Your task to perform on an android device: open chrome privacy settings Image 0: 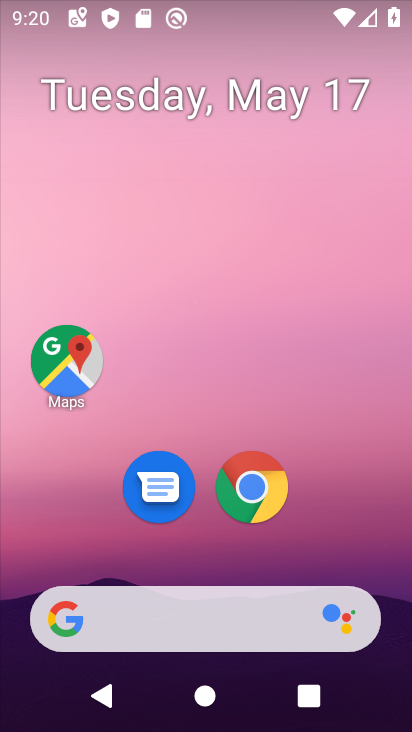
Step 0: press home button
Your task to perform on an android device: open chrome privacy settings Image 1: 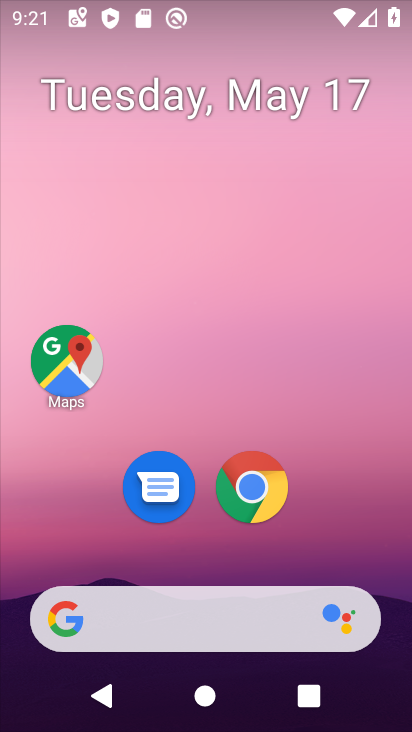
Step 1: drag from (280, 661) to (294, 383)
Your task to perform on an android device: open chrome privacy settings Image 2: 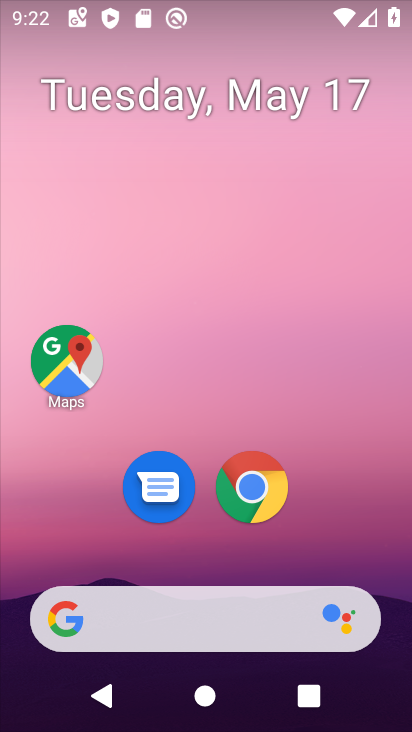
Step 2: drag from (214, 646) to (299, 225)
Your task to perform on an android device: open chrome privacy settings Image 3: 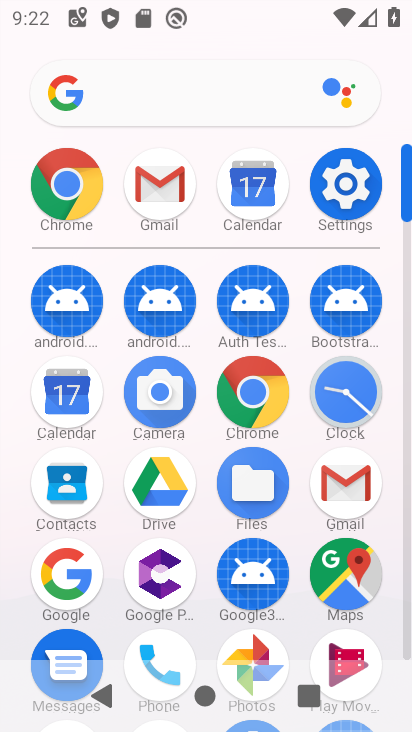
Step 3: click (57, 182)
Your task to perform on an android device: open chrome privacy settings Image 4: 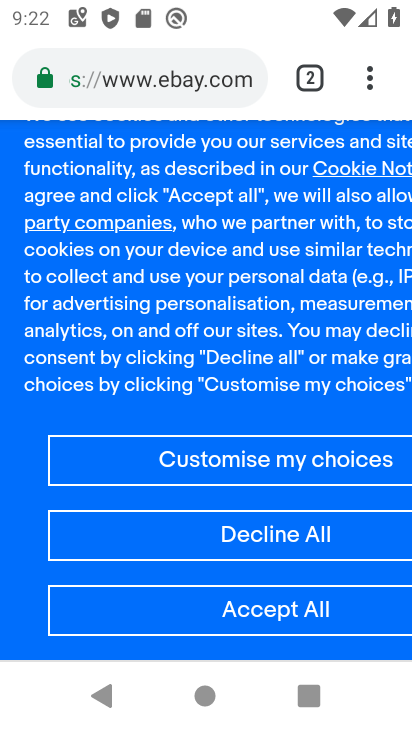
Step 4: click (356, 89)
Your task to perform on an android device: open chrome privacy settings Image 5: 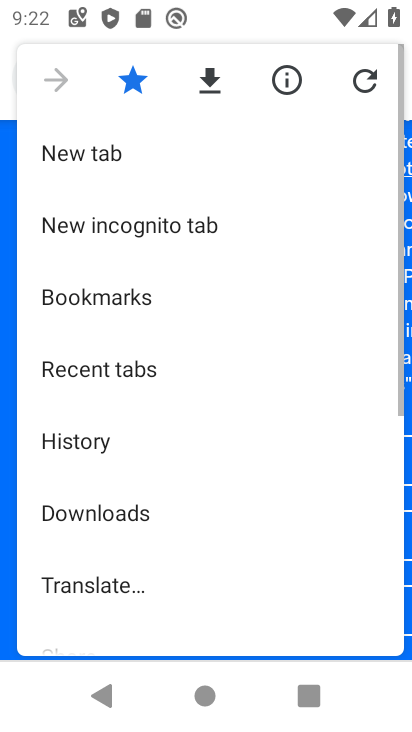
Step 5: drag from (168, 550) to (271, 234)
Your task to perform on an android device: open chrome privacy settings Image 6: 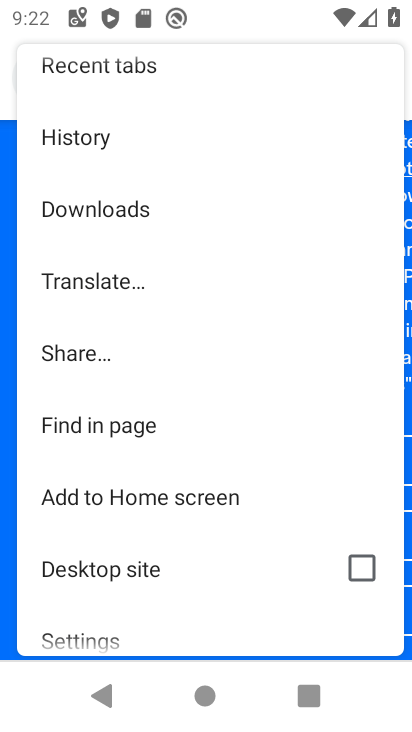
Step 6: click (115, 637)
Your task to perform on an android device: open chrome privacy settings Image 7: 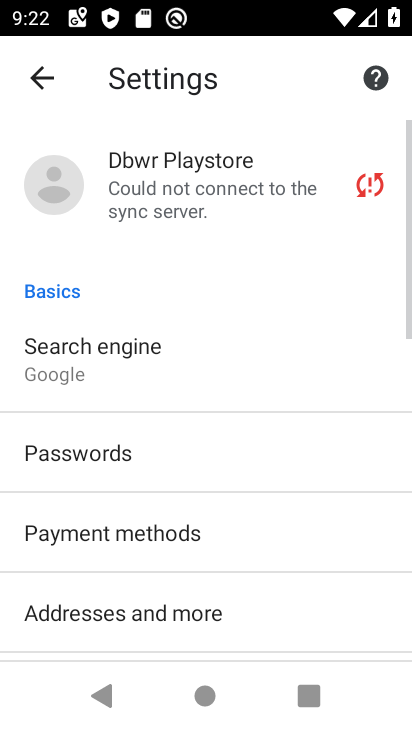
Step 7: drag from (159, 546) to (152, 233)
Your task to perform on an android device: open chrome privacy settings Image 8: 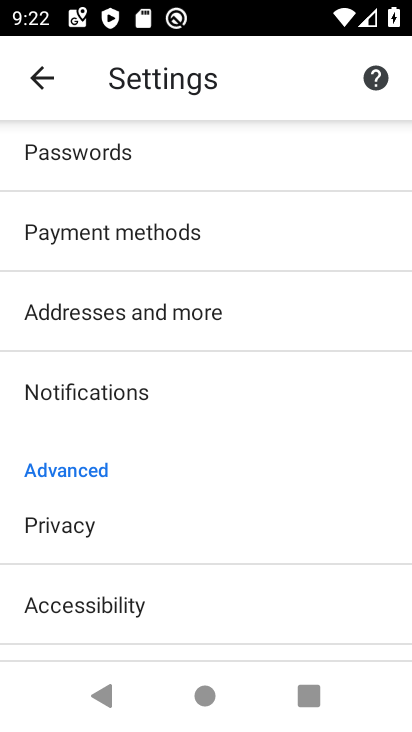
Step 8: click (80, 545)
Your task to perform on an android device: open chrome privacy settings Image 9: 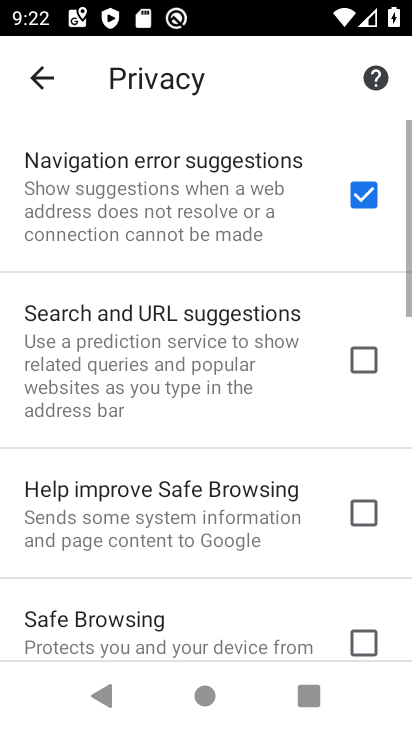
Step 9: task complete